Your task to perform on an android device: Go to CNN.com Image 0: 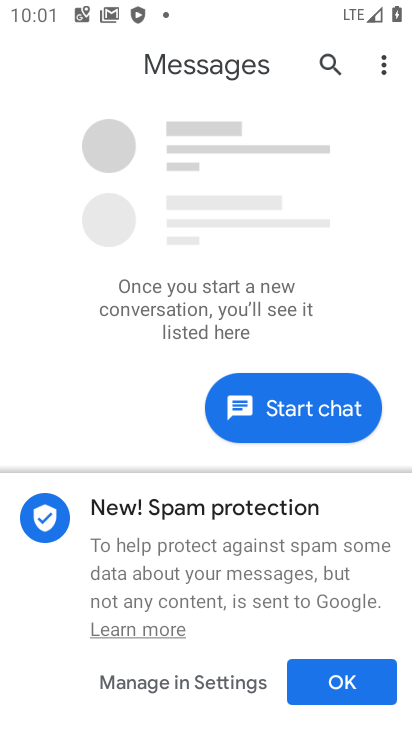
Step 0: press home button
Your task to perform on an android device: Go to CNN.com Image 1: 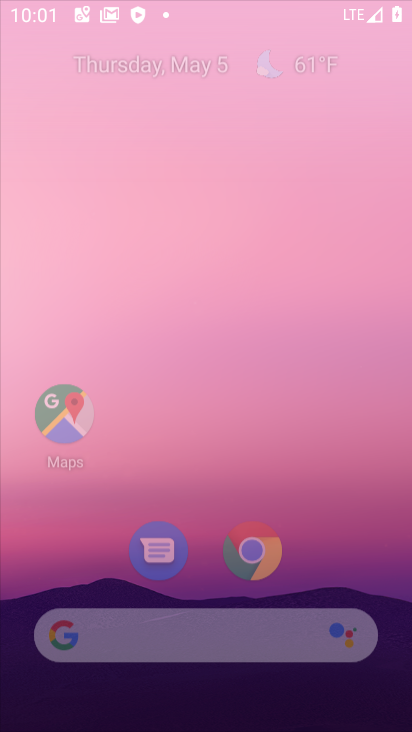
Step 1: drag from (151, 343) to (216, 117)
Your task to perform on an android device: Go to CNN.com Image 2: 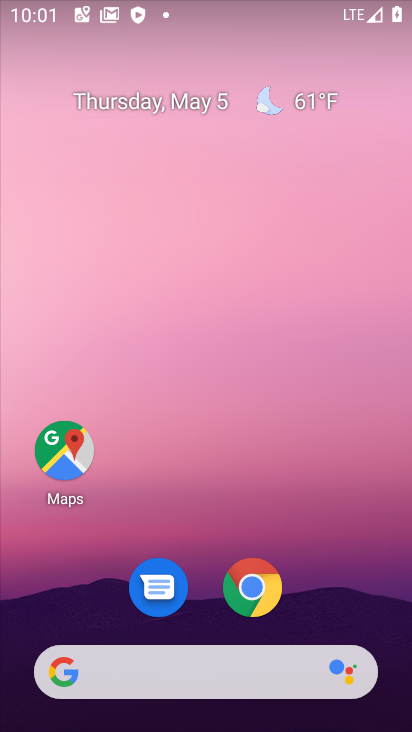
Step 2: drag from (87, 609) to (245, 109)
Your task to perform on an android device: Go to CNN.com Image 3: 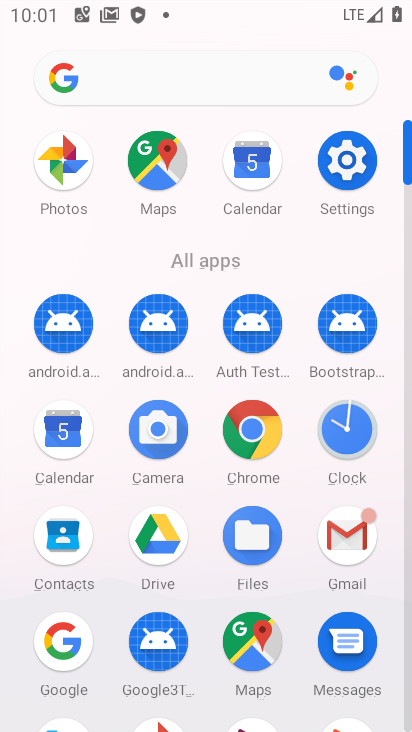
Step 3: click (75, 651)
Your task to perform on an android device: Go to CNN.com Image 4: 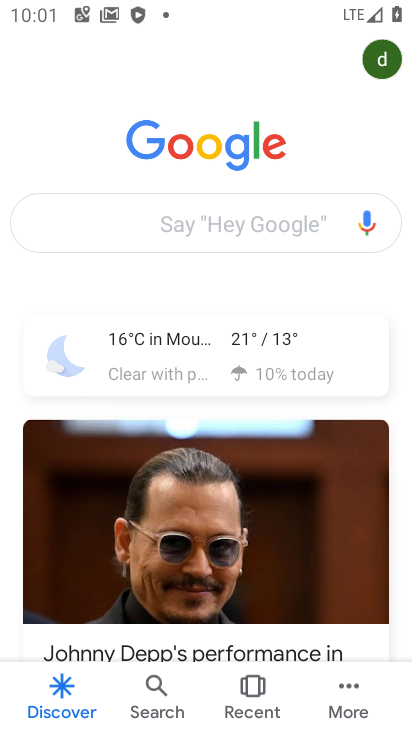
Step 4: click (172, 231)
Your task to perform on an android device: Go to CNN.com Image 5: 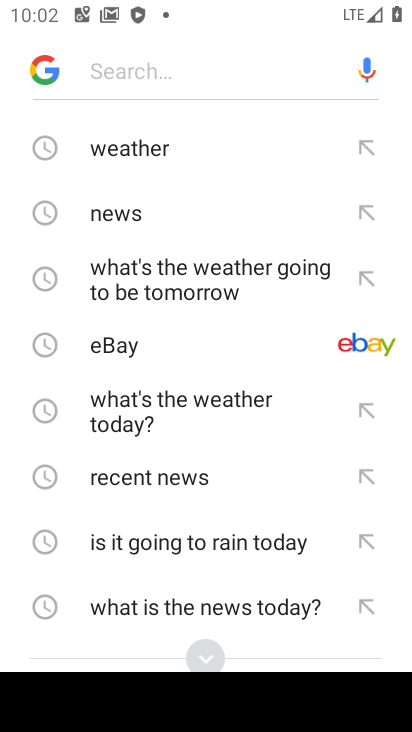
Step 5: type "CNN.oom"
Your task to perform on an android device: Go to CNN.com Image 6: 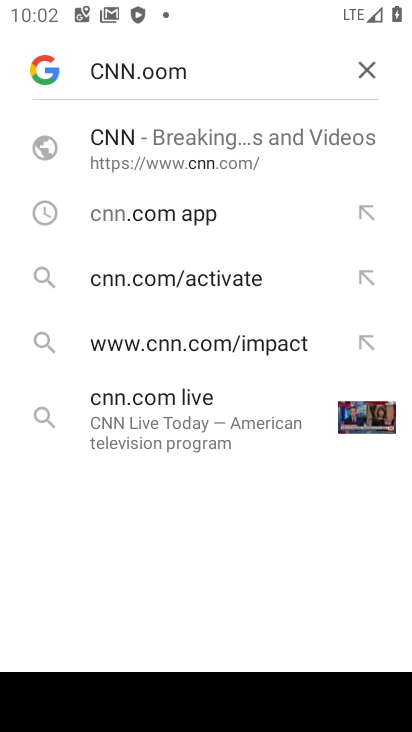
Step 6: click (174, 181)
Your task to perform on an android device: Go to CNN.com Image 7: 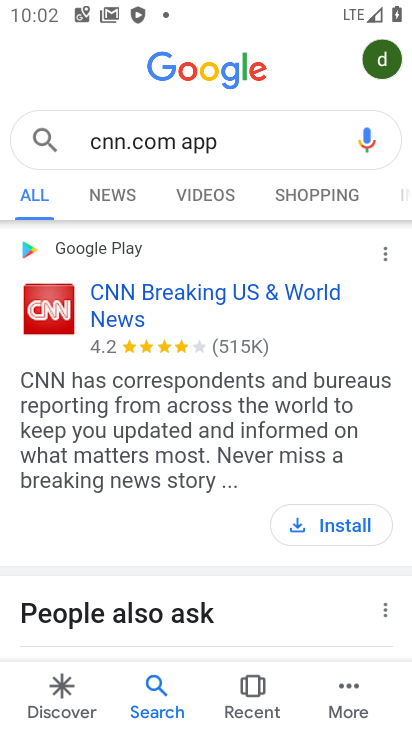
Step 7: drag from (138, 676) to (322, 224)
Your task to perform on an android device: Go to CNN.com Image 8: 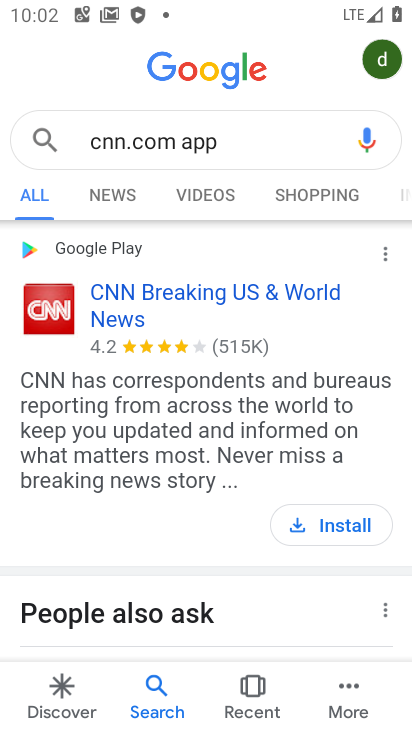
Step 8: drag from (147, 585) to (271, 76)
Your task to perform on an android device: Go to CNN.com Image 9: 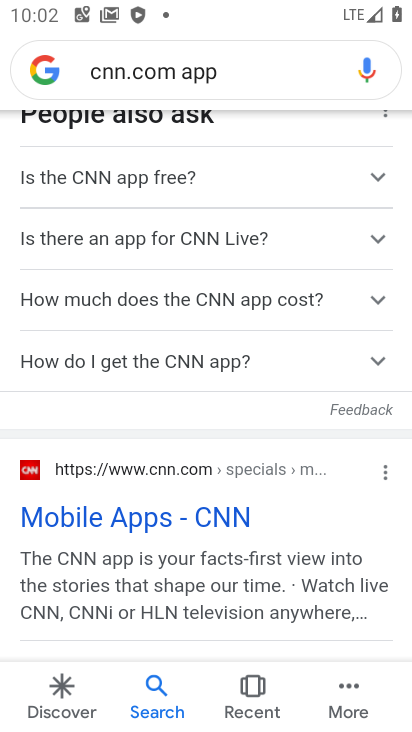
Step 9: click (158, 523)
Your task to perform on an android device: Go to CNN.com Image 10: 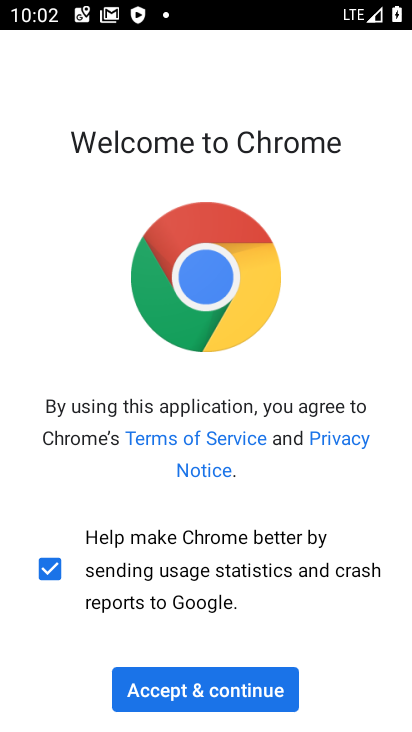
Step 10: click (168, 693)
Your task to perform on an android device: Go to CNN.com Image 11: 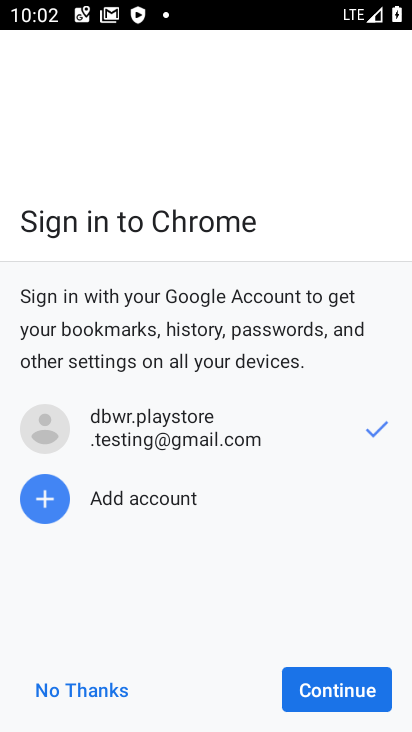
Step 11: click (337, 689)
Your task to perform on an android device: Go to CNN.com Image 12: 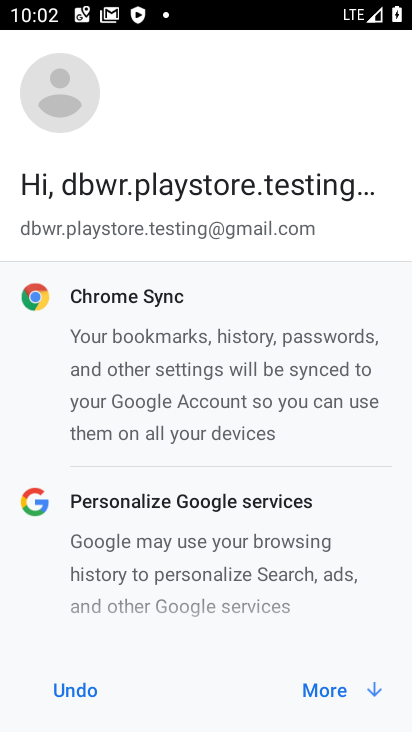
Step 12: click (332, 689)
Your task to perform on an android device: Go to CNN.com Image 13: 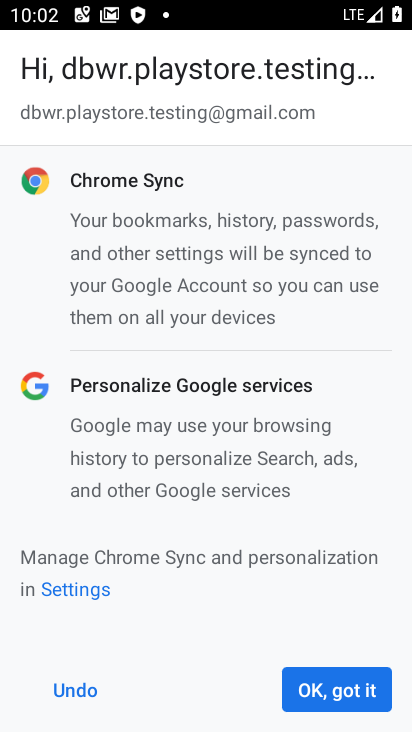
Step 13: click (331, 689)
Your task to perform on an android device: Go to CNN.com Image 14: 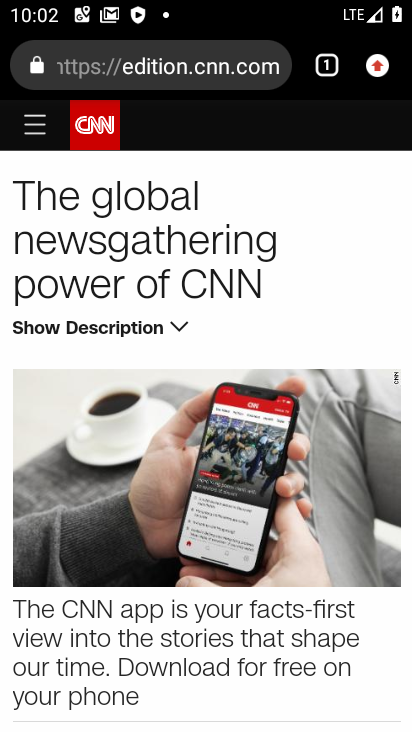
Step 14: task complete